Your task to perform on an android device: Open the calendar and show me this week's events? Image 0: 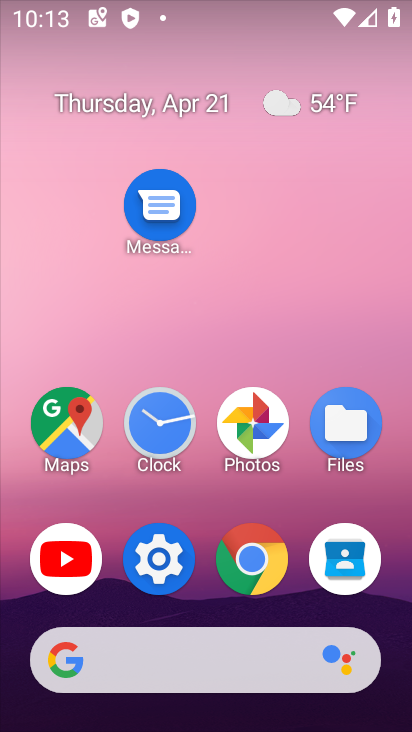
Step 0: drag from (214, 709) to (281, 4)
Your task to perform on an android device: Open the calendar and show me this week's events? Image 1: 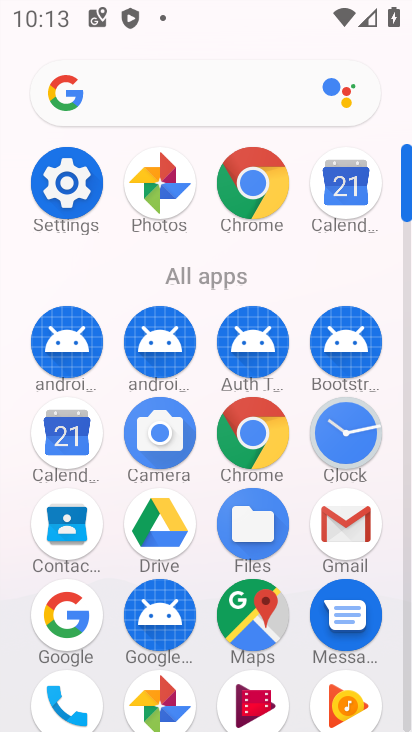
Step 1: click (67, 430)
Your task to perform on an android device: Open the calendar and show me this week's events? Image 2: 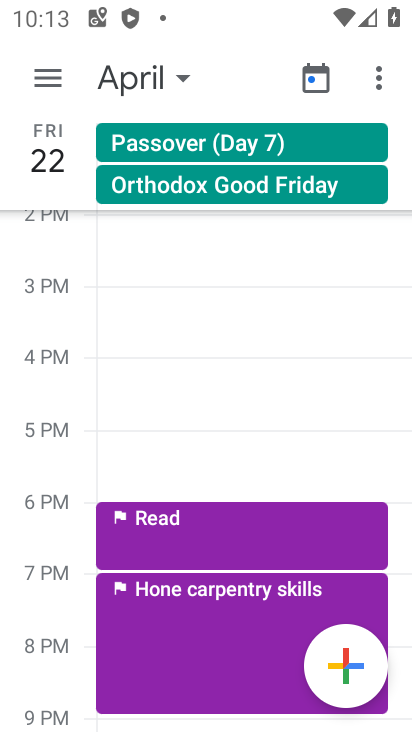
Step 2: click (56, 73)
Your task to perform on an android device: Open the calendar and show me this week's events? Image 3: 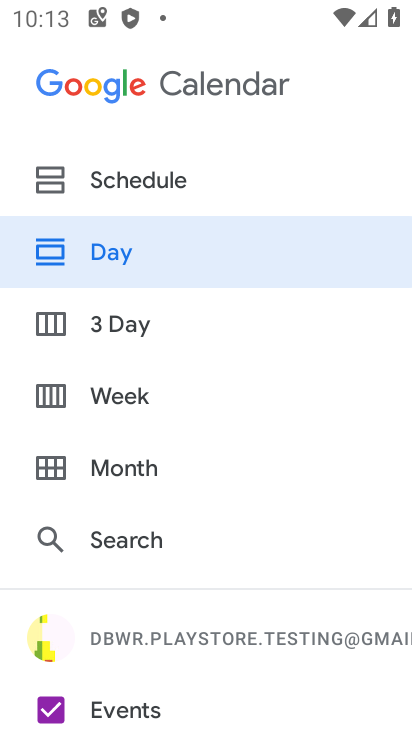
Step 3: click (111, 396)
Your task to perform on an android device: Open the calendar and show me this week's events? Image 4: 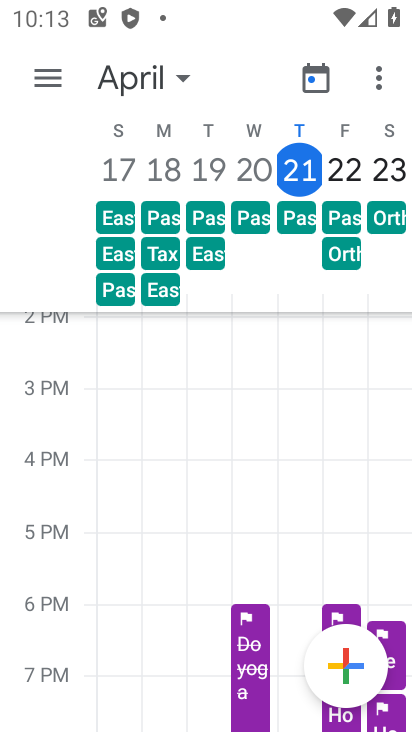
Step 4: task complete